Your task to perform on an android device: choose inbox layout in the gmail app Image 0: 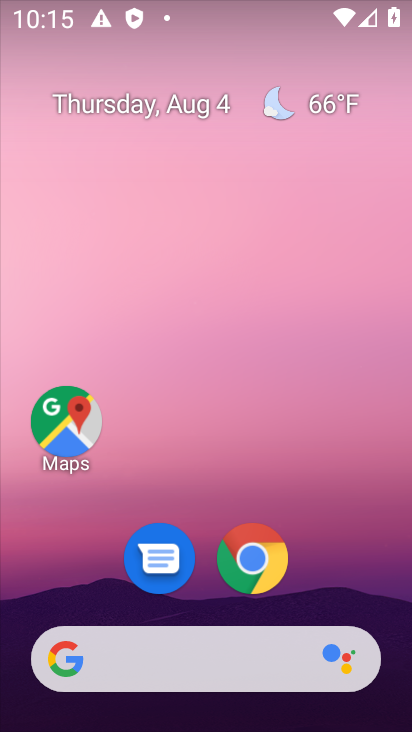
Step 0: drag from (362, 589) to (328, 71)
Your task to perform on an android device: choose inbox layout in the gmail app Image 1: 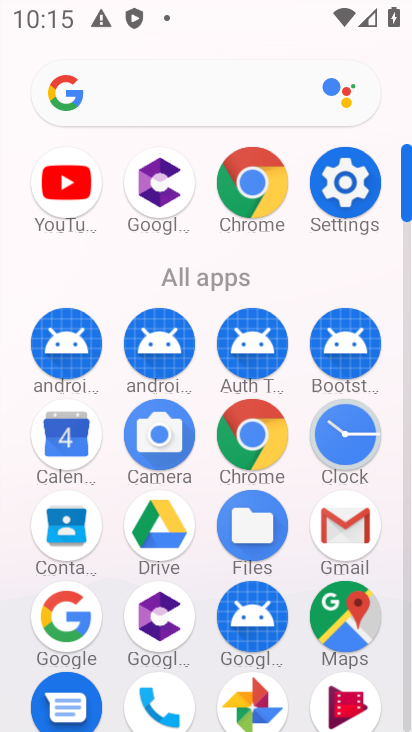
Step 1: click (339, 523)
Your task to perform on an android device: choose inbox layout in the gmail app Image 2: 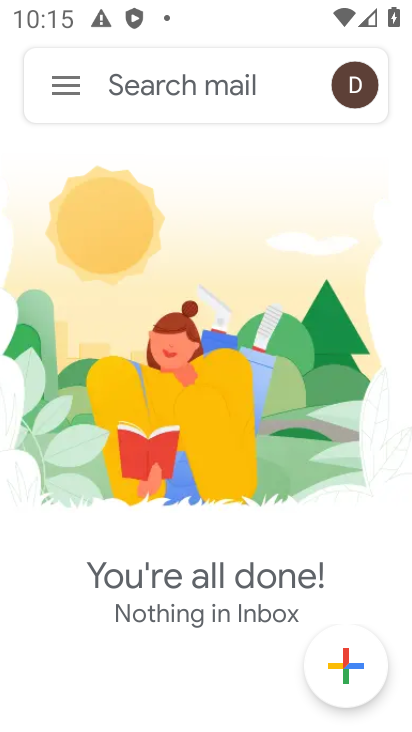
Step 2: click (69, 71)
Your task to perform on an android device: choose inbox layout in the gmail app Image 3: 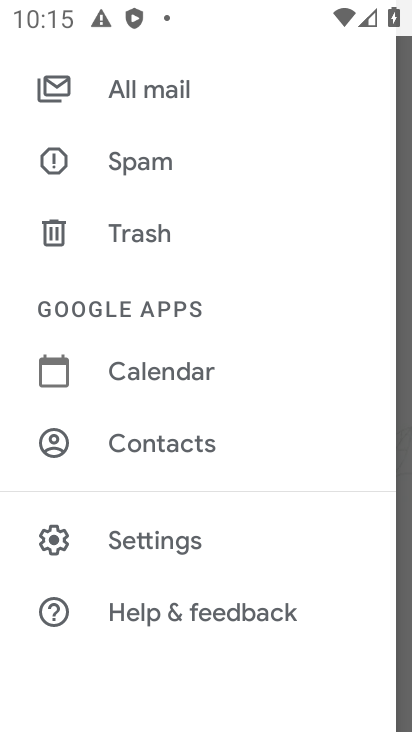
Step 3: click (150, 549)
Your task to perform on an android device: choose inbox layout in the gmail app Image 4: 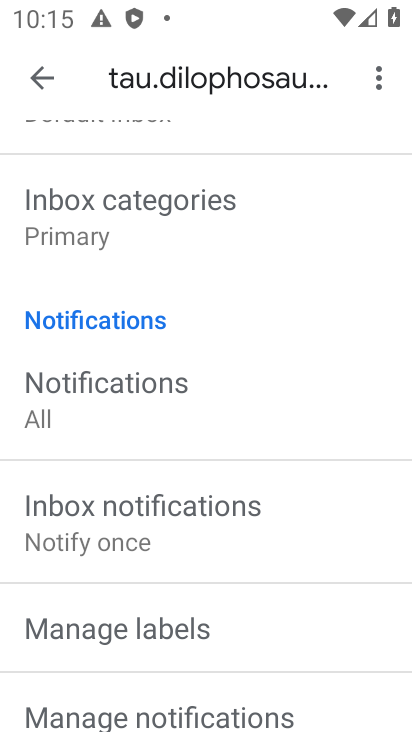
Step 4: drag from (232, 240) to (237, 607)
Your task to perform on an android device: choose inbox layout in the gmail app Image 5: 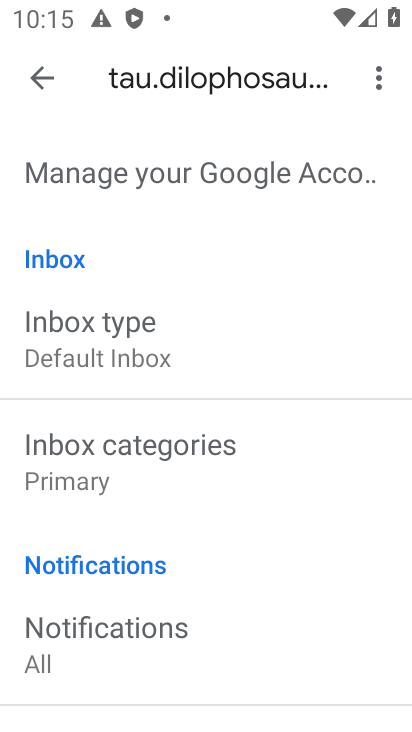
Step 5: click (102, 337)
Your task to perform on an android device: choose inbox layout in the gmail app Image 6: 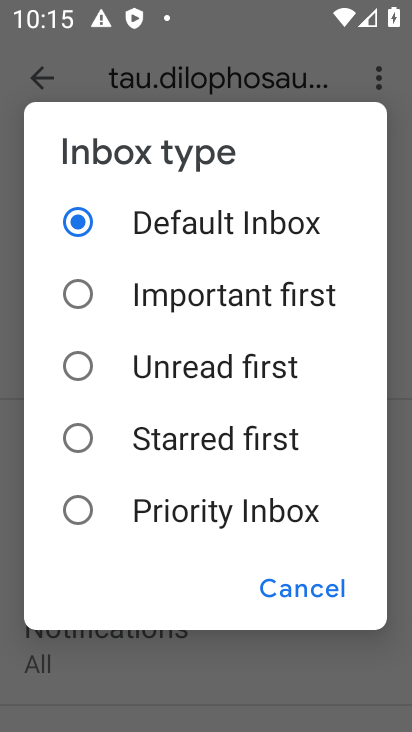
Step 6: task complete